Your task to perform on an android device: Show me the alarms in the clock app Image 0: 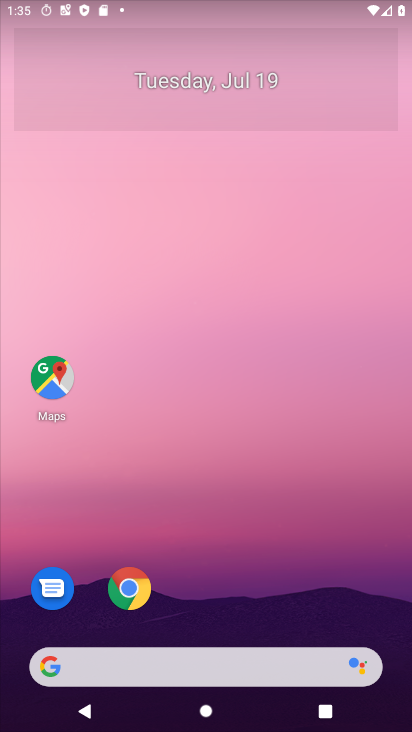
Step 0: drag from (49, 705) to (244, 211)
Your task to perform on an android device: Show me the alarms in the clock app Image 1: 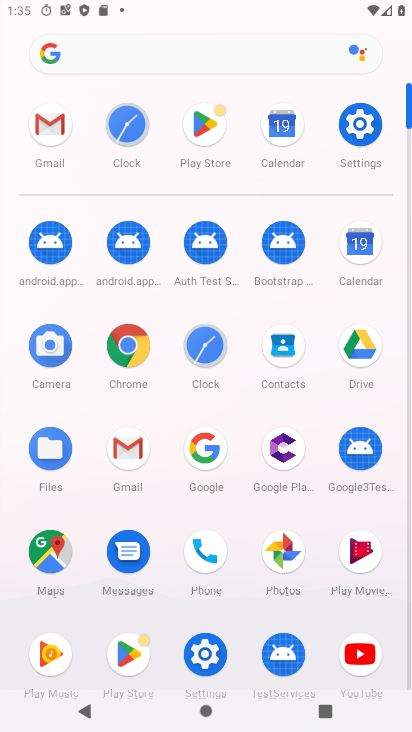
Step 1: click (209, 364)
Your task to perform on an android device: Show me the alarms in the clock app Image 2: 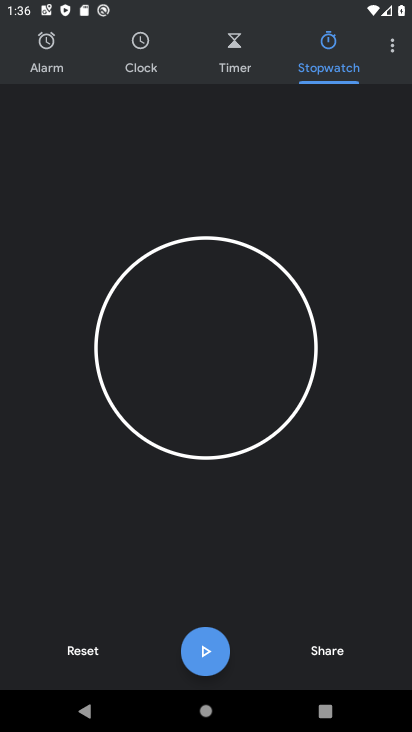
Step 2: click (42, 52)
Your task to perform on an android device: Show me the alarms in the clock app Image 3: 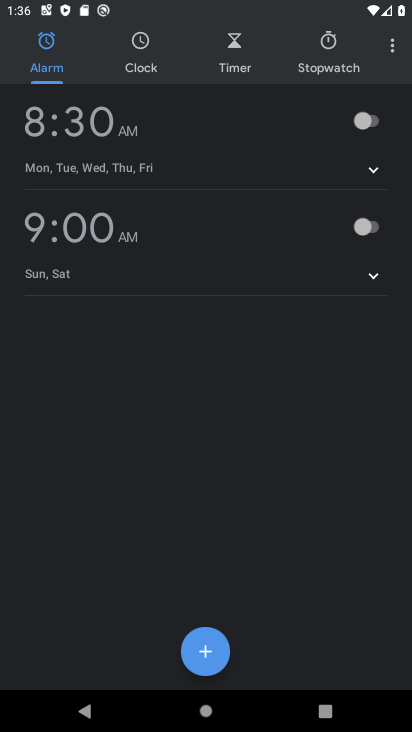
Step 3: task complete